Your task to perform on an android device: Add "acer nitro" to the cart on bestbuy.com Image 0: 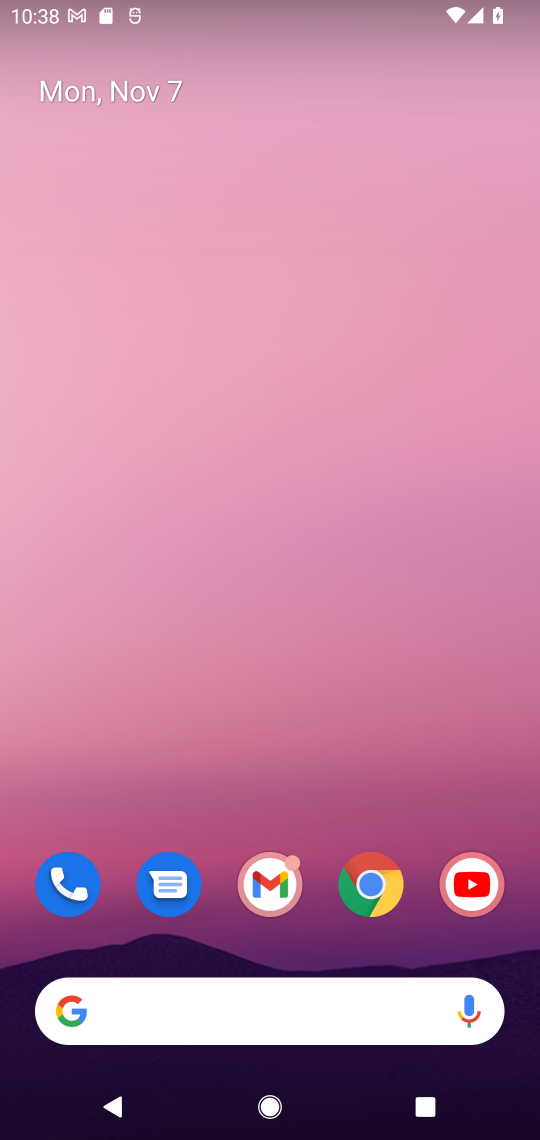
Step 0: click (356, 898)
Your task to perform on an android device: Add "acer nitro" to the cart on bestbuy.com Image 1: 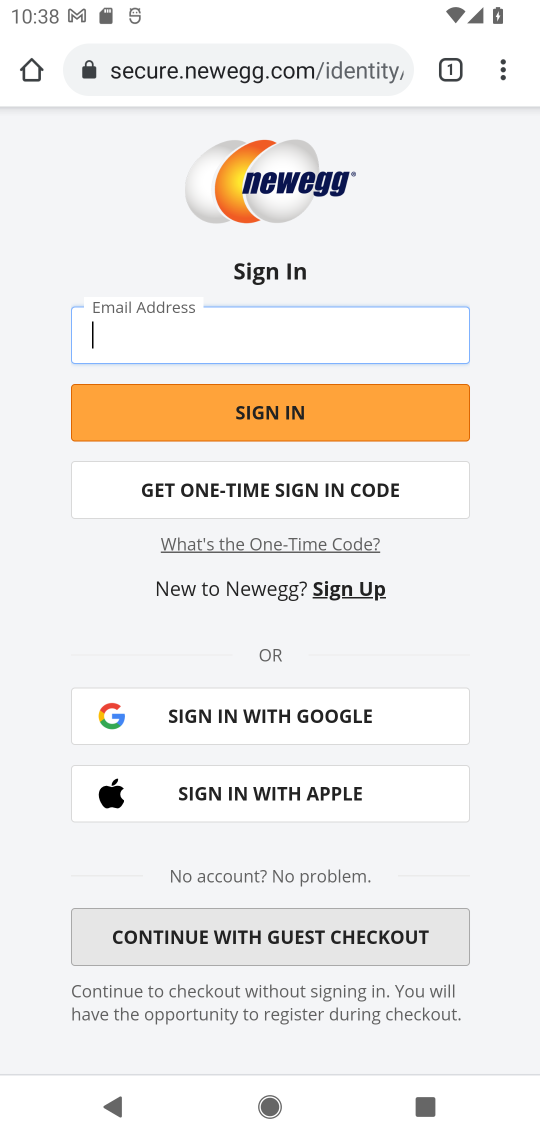
Step 1: press home button
Your task to perform on an android device: Add "acer nitro" to the cart on bestbuy.com Image 2: 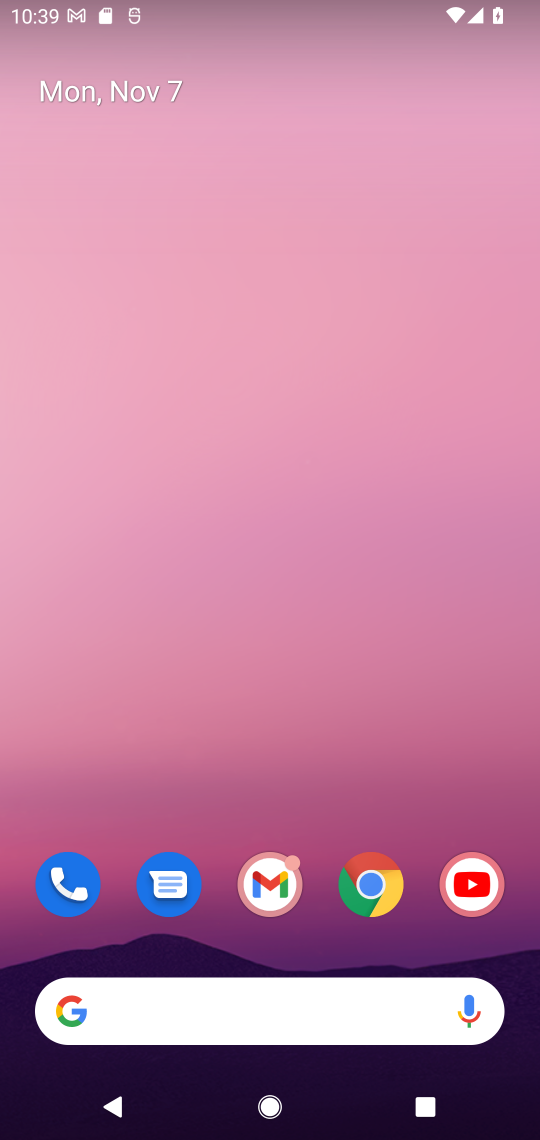
Step 2: click (395, 885)
Your task to perform on an android device: Add "acer nitro" to the cart on bestbuy.com Image 3: 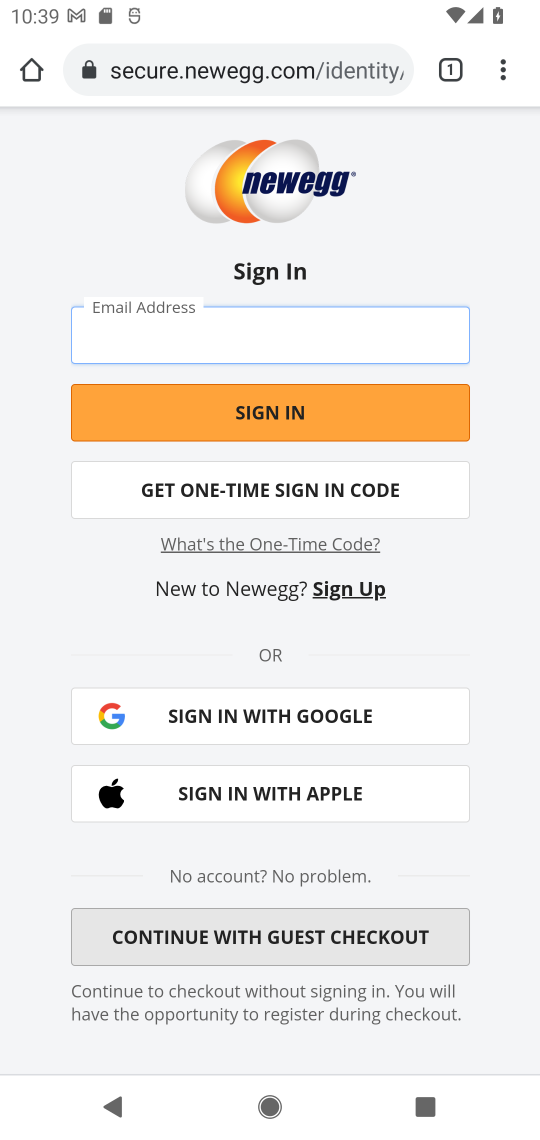
Step 3: click (356, 53)
Your task to perform on an android device: Add "acer nitro" to the cart on bestbuy.com Image 4: 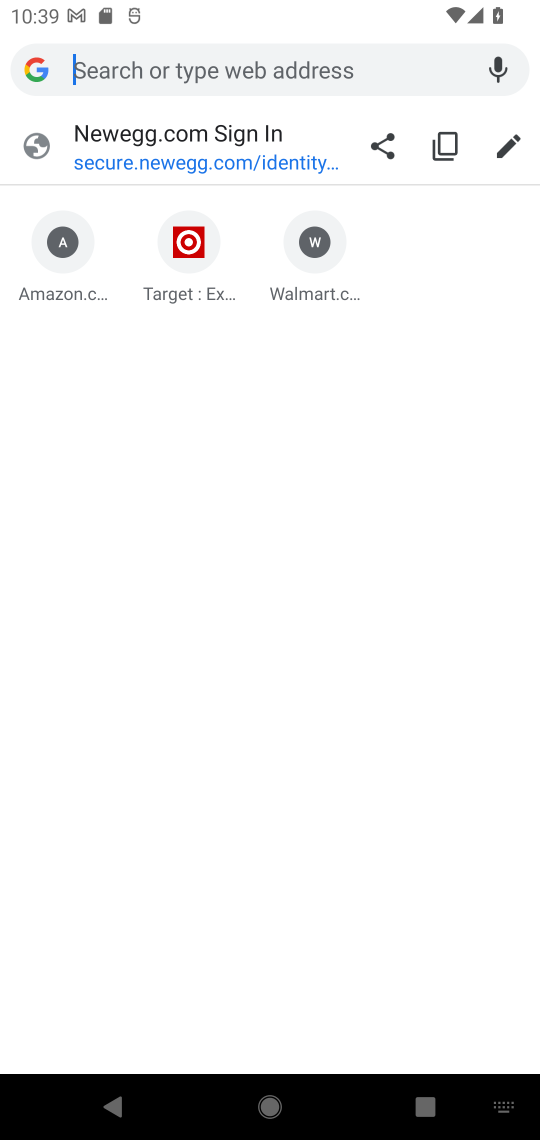
Step 4: type "bestbuy"
Your task to perform on an android device: Add "acer nitro" to the cart on bestbuy.com Image 5: 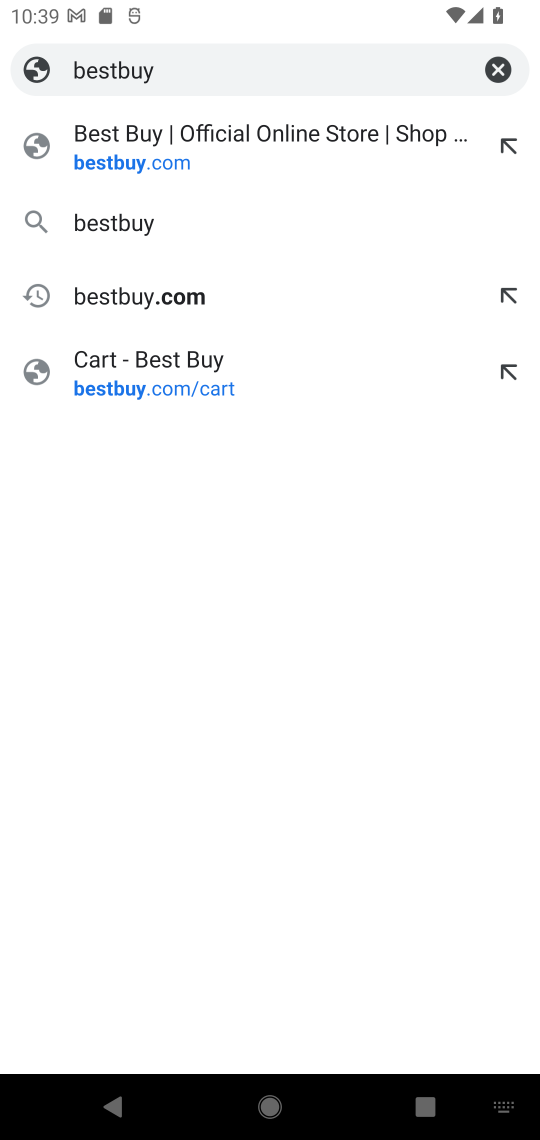
Step 5: click (167, 296)
Your task to perform on an android device: Add "acer nitro" to the cart on bestbuy.com Image 6: 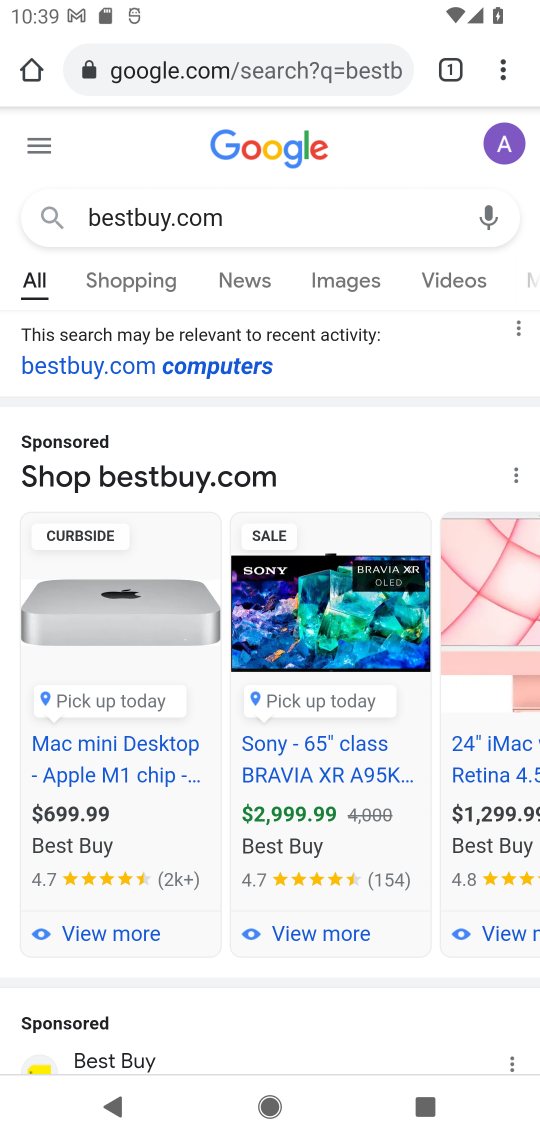
Step 6: drag from (209, 709) to (246, 375)
Your task to perform on an android device: Add "acer nitro" to the cart on bestbuy.com Image 7: 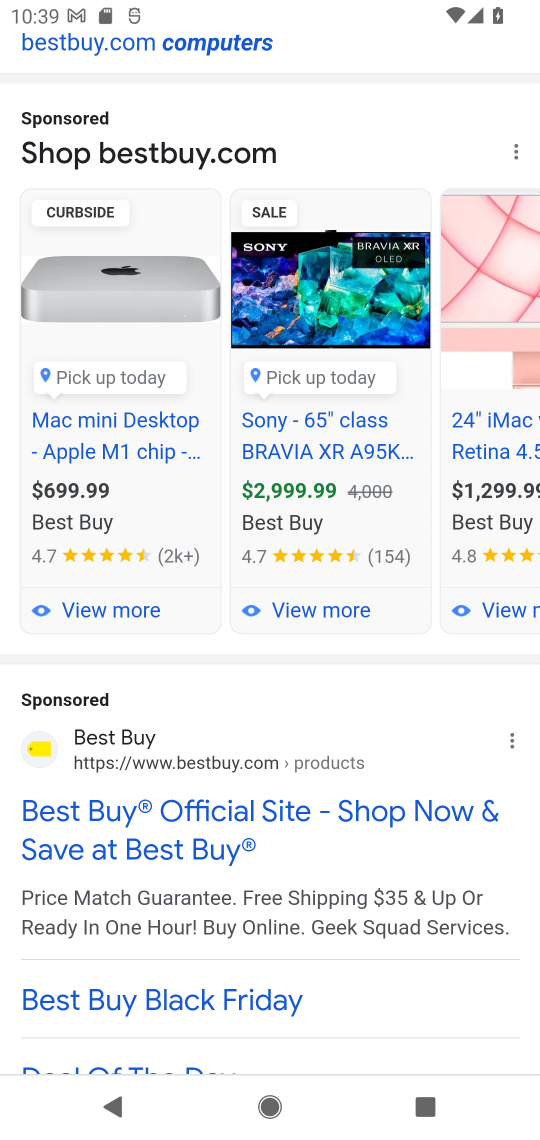
Step 7: click (205, 767)
Your task to perform on an android device: Add "acer nitro" to the cart on bestbuy.com Image 8: 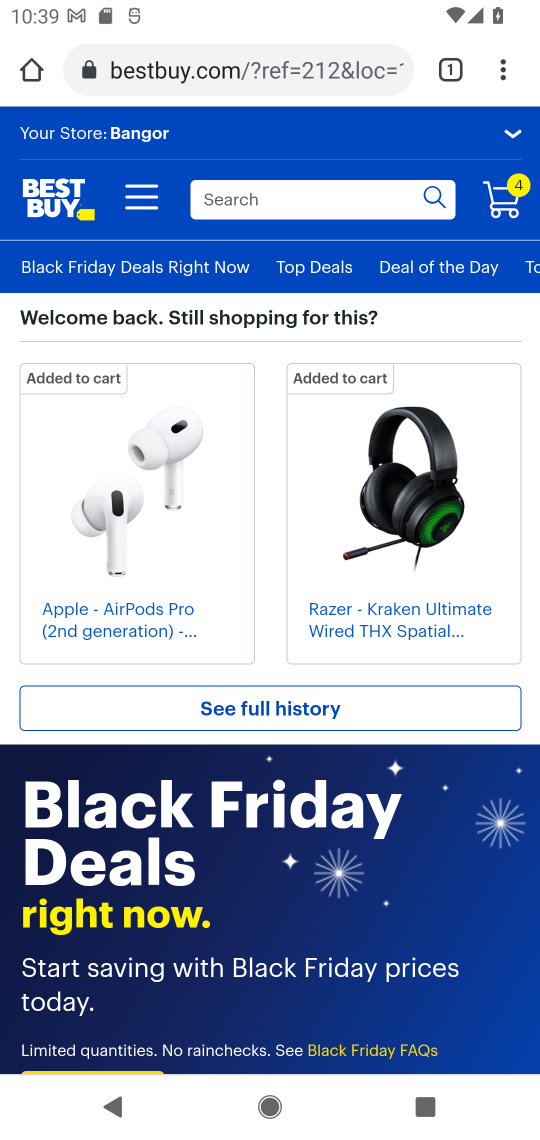
Step 8: click (315, 188)
Your task to perform on an android device: Add "acer nitro" to the cart on bestbuy.com Image 9: 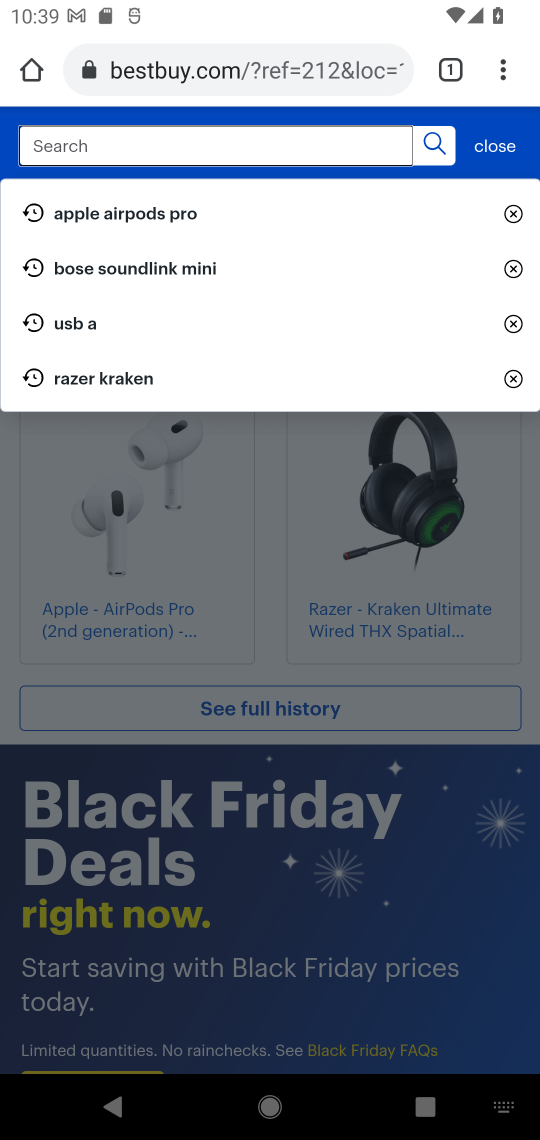
Step 9: type "acer nitro"
Your task to perform on an android device: Add "acer nitro" to the cart on bestbuy.com Image 10: 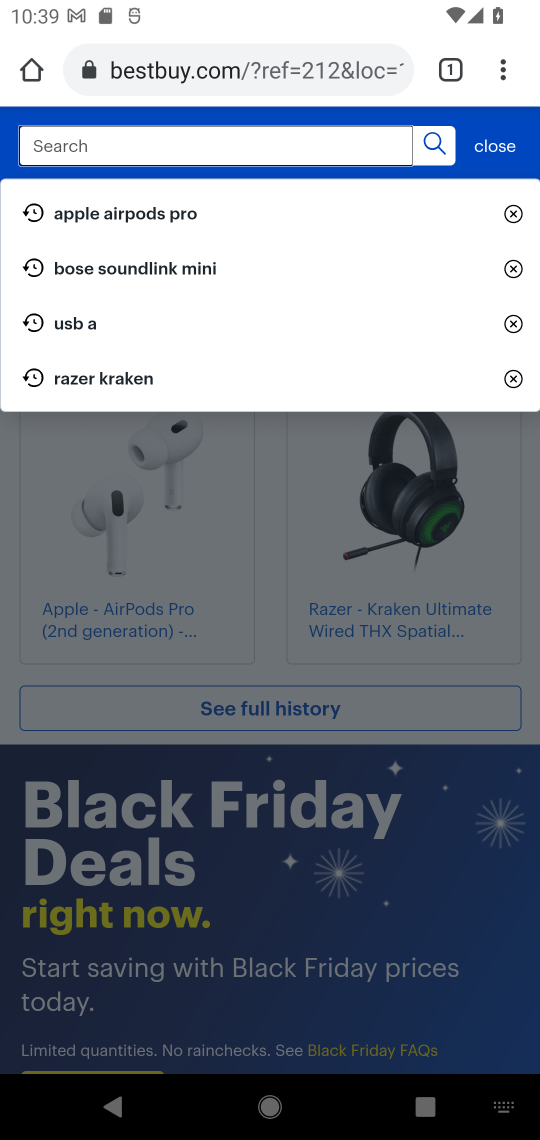
Step 10: press enter
Your task to perform on an android device: Add "acer nitro" to the cart on bestbuy.com Image 11: 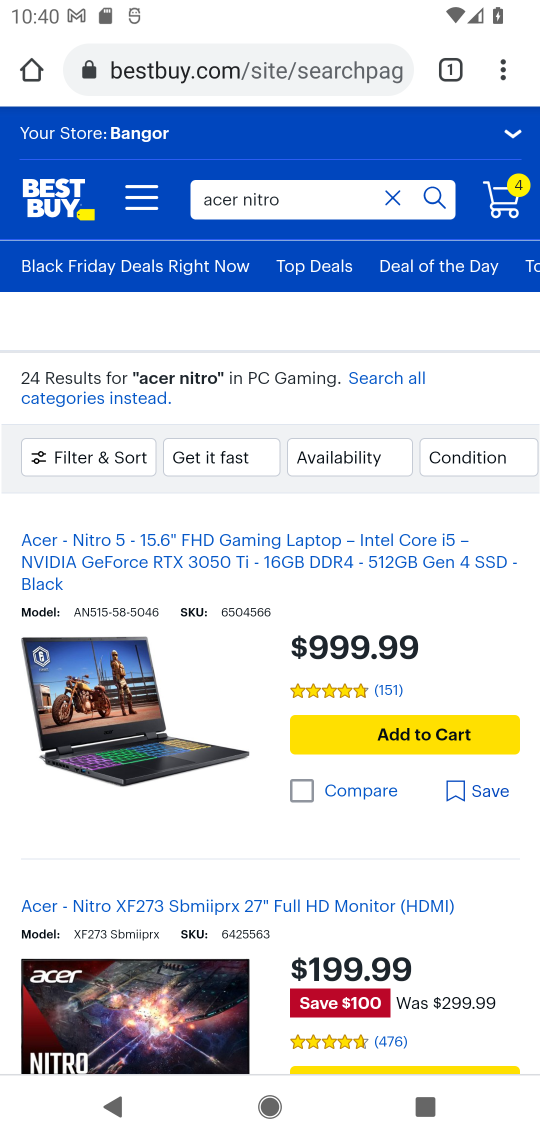
Step 11: click (168, 1050)
Your task to perform on an android device: Add "acer nitro" to the cart on bestbuy.com Image 12: 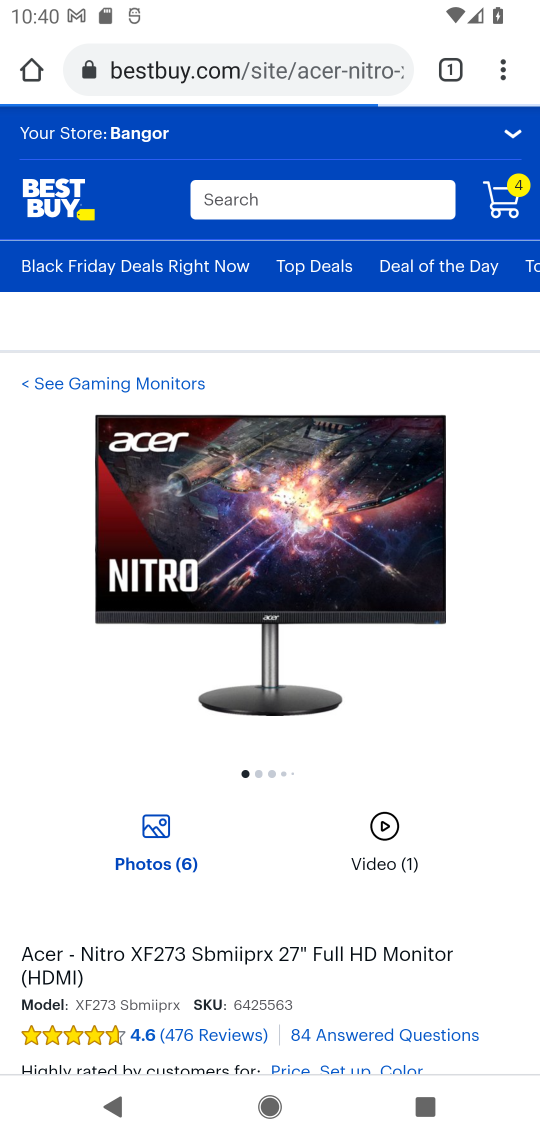
Step 12: drag from (317, 800) to (373, 303)
Your task to perform on an android device: Add "acer nitro" to the cart on bestbuy.com Image 13: 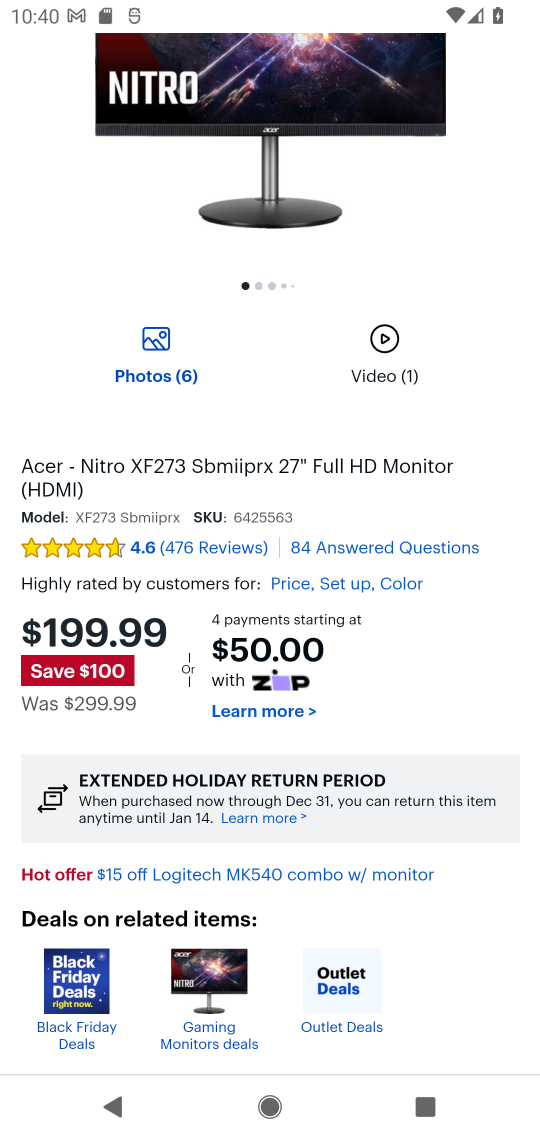
Step 13: drag from (447, 946) to (395, 302)
Your task to perform on an android device: Add "acer nitro" to the cart on bestbuy.com Image 14: 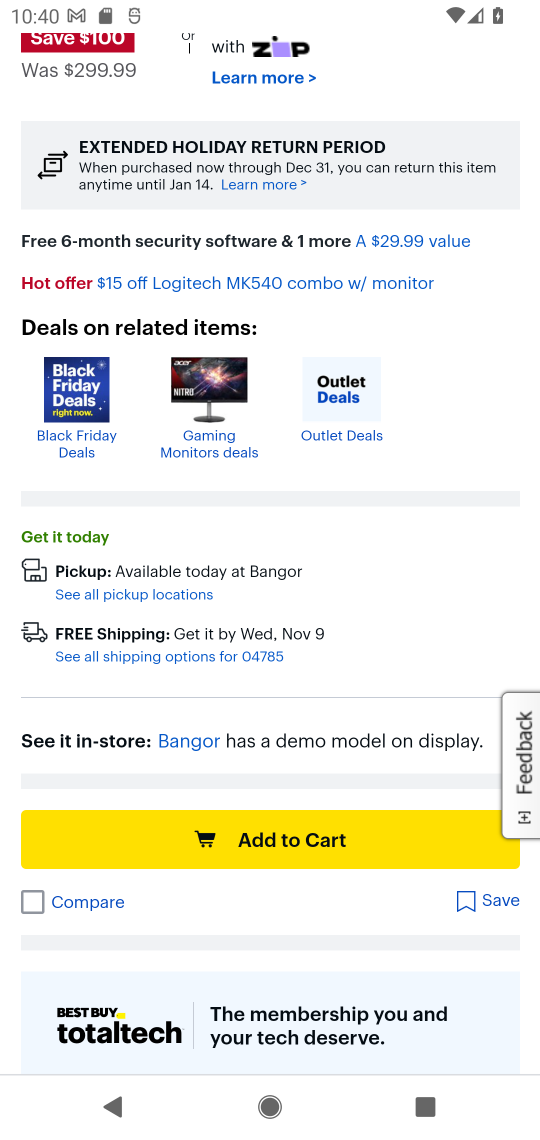
Step 14: click (343, 835)
Your task to perform on an android device: Add "acer nitro" to the cart on bestbuy.com Image 15: 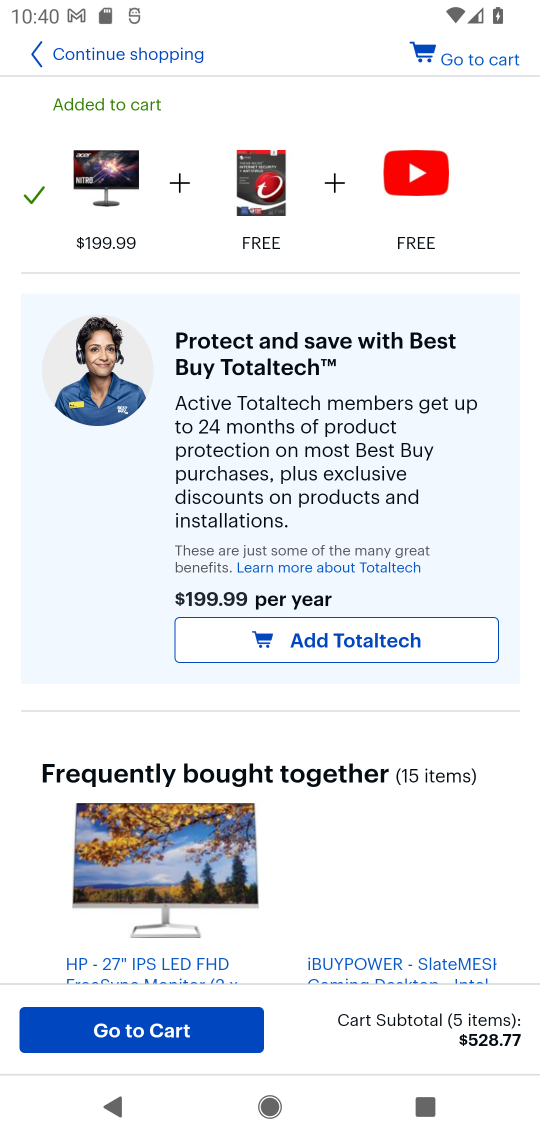
Step 15: task complete